Your task to perform on an android device: What's the weather going to be this weekend? Image 0: 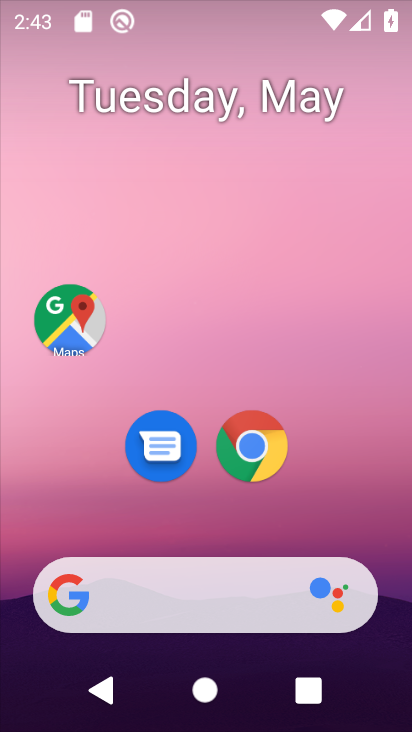
Step 0: drag from (336, 345) to (311, 45)
Your task to perform on an android device: What's the weather going to be this weekend? Image 1: 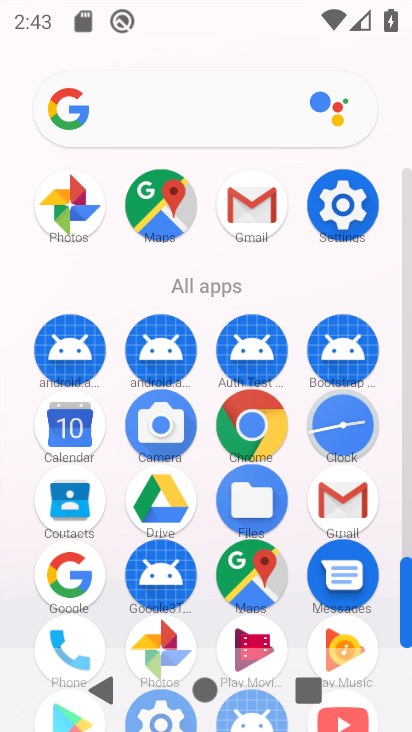
Step 1: press home button
Your task to perform on an android device: What's the weather going to be this weekend? Image 2: 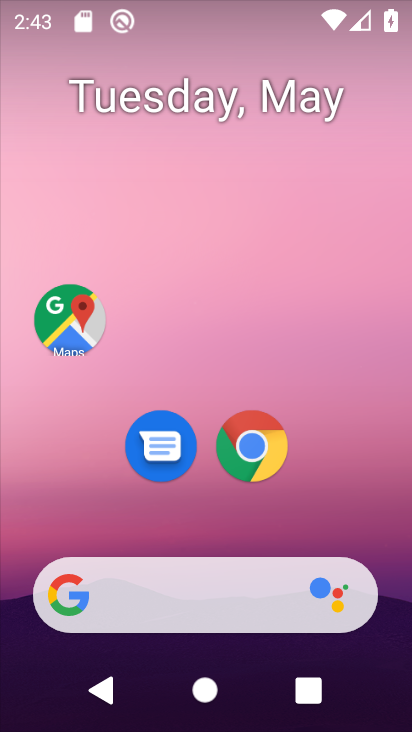
Step 2: click (75, 596)
Your task to perform on an android device: What's the weather going to be this weekend? Image 3: 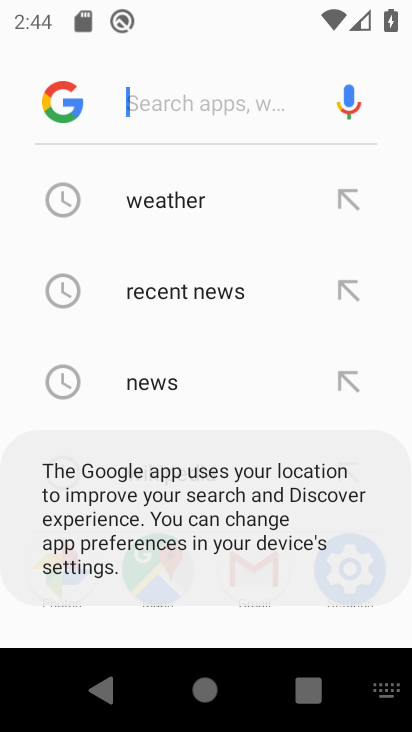
Step 3: click (50, 82)
Your task to perform on an android device: What's the weather going to be this weekend? Image 4: 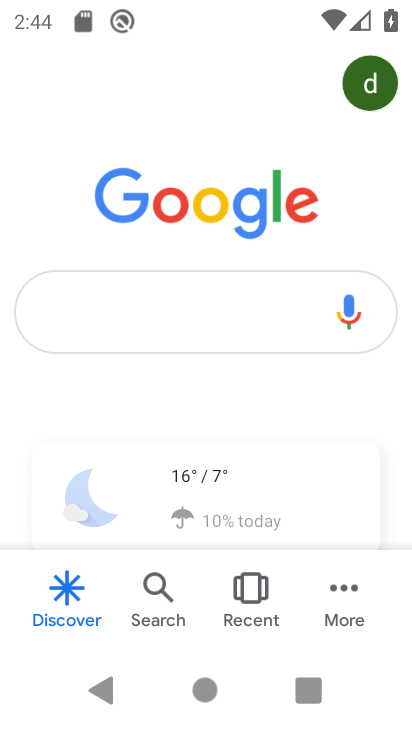
Step 4: drag from (299, 499) to (352, 227)
Your task to perform on an android device: What's the weather going to be this weekend? Image 5: 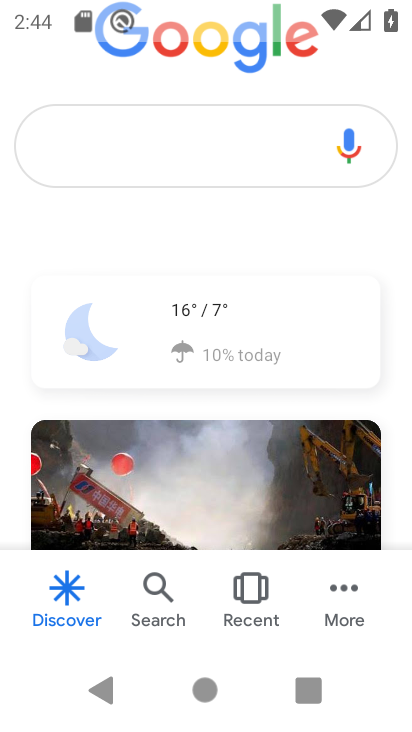
Step 5: click (160, 323)
Your task to perform on an android device: What's the weather going to be this weekend? Image 6: 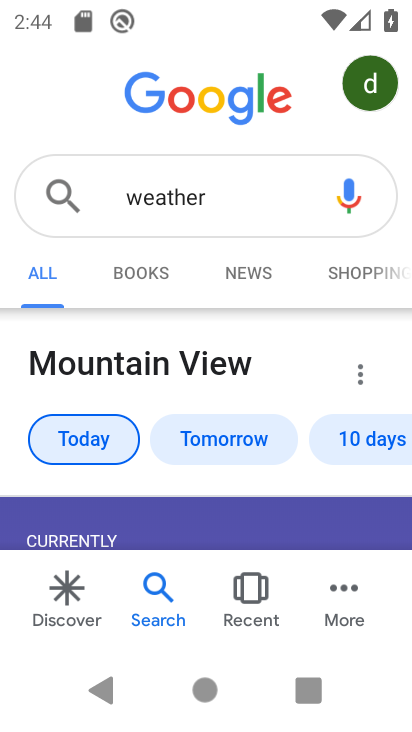
Step 6: task complete